Your task to perform on an android device: When is my next appointment? Image 0: 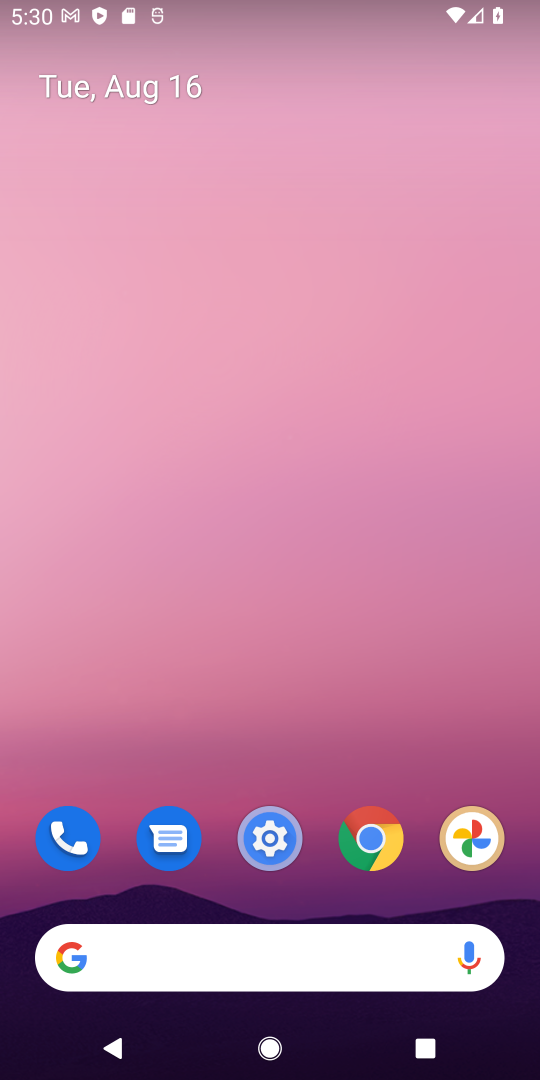
Step 0: drag from (294, 489) to (366, 86)
Your task to perform on an android device: When is my next appointment? Image 1: 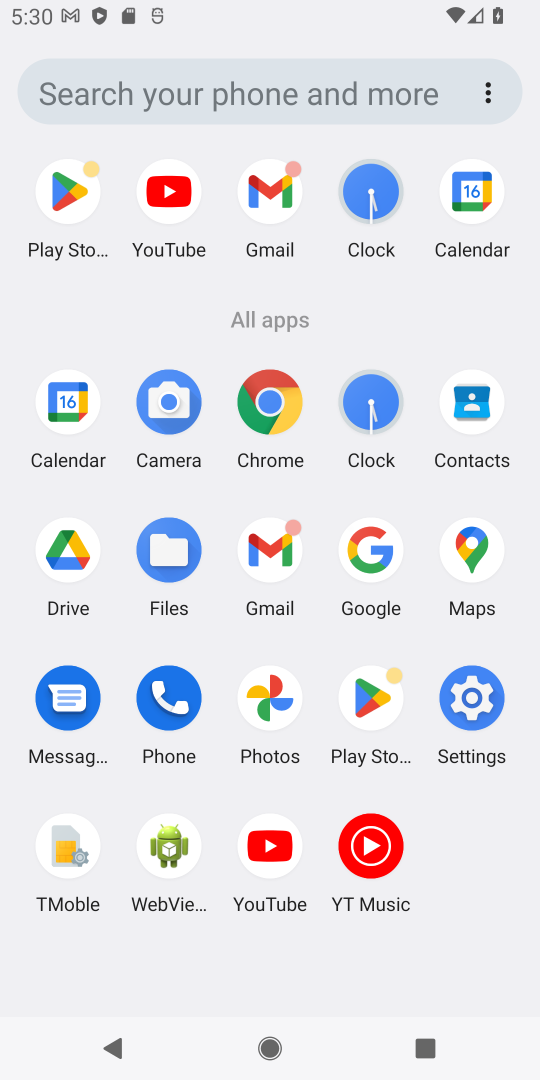
Step 1: click (474, 213)
Your task to perform on an android device: When is my next appointment? Image 2: 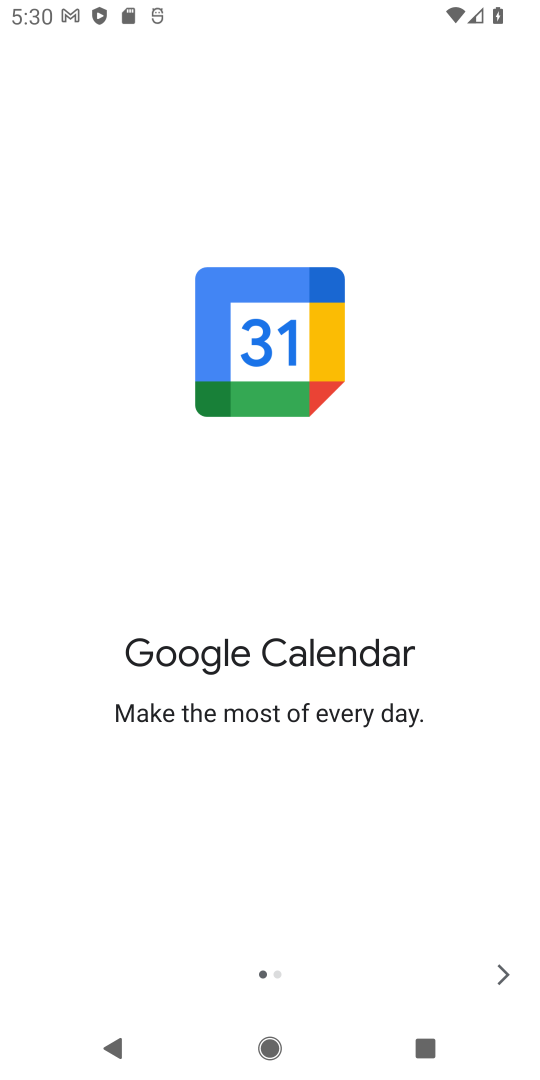
Step 2: click (501, 972)
Your task to perform on an android device: When is my next appointment? Image 3: 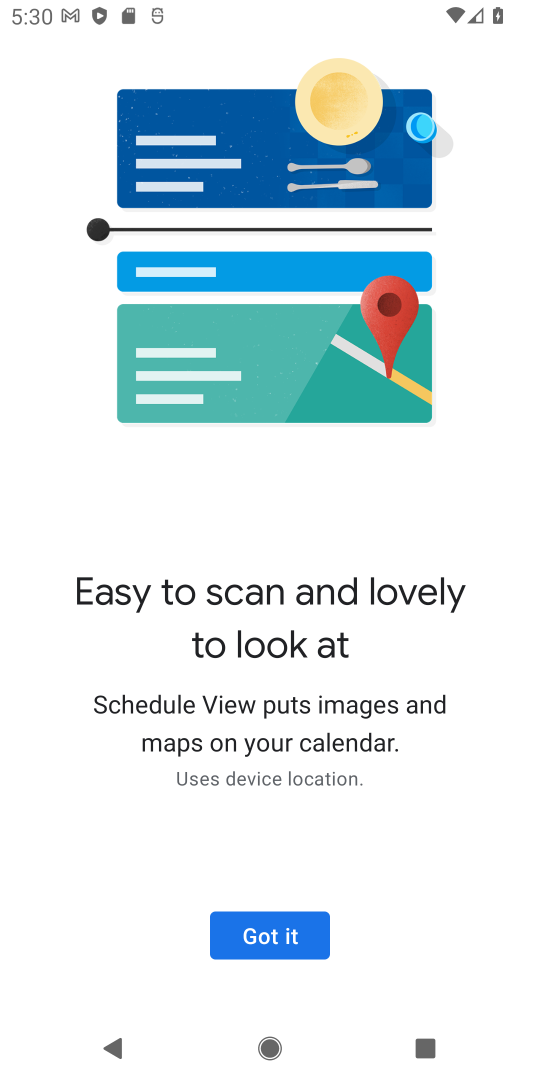
Step 3: click (501, 970)
Your task to perform on an android device: When is my next appointment? Image 4: 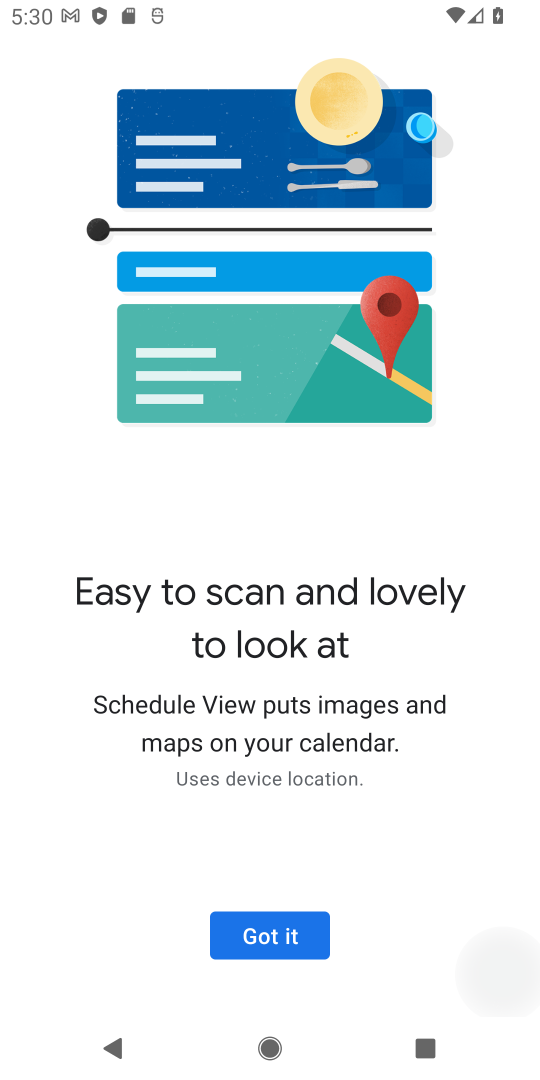
Step 4: click (237, 938)
Your task to perform on an android device: When is my next appointment? Image 5: 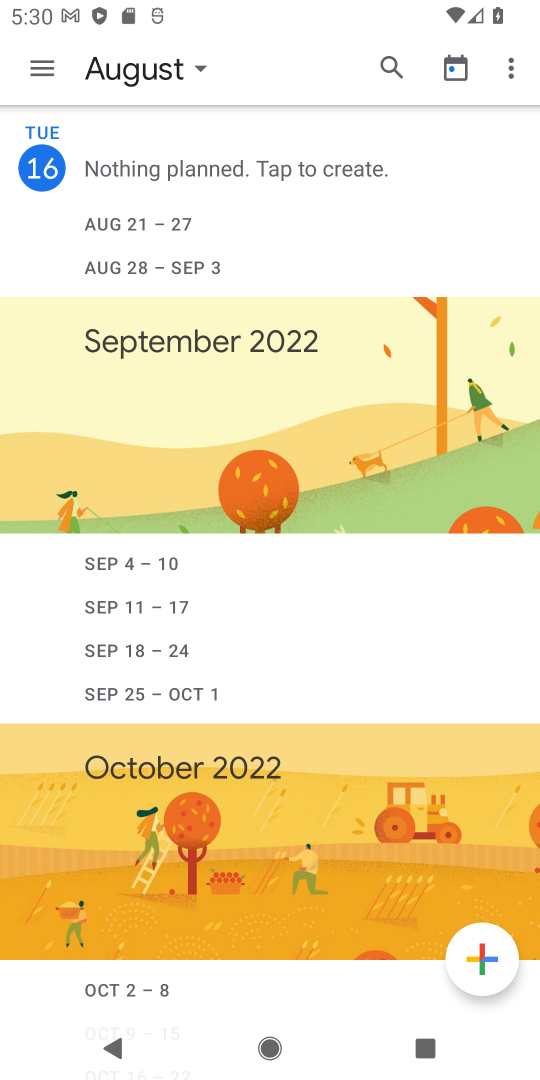
Step 5: click (174, 68)
Your task to perform on an android device: When is my next appointment? Image 6: 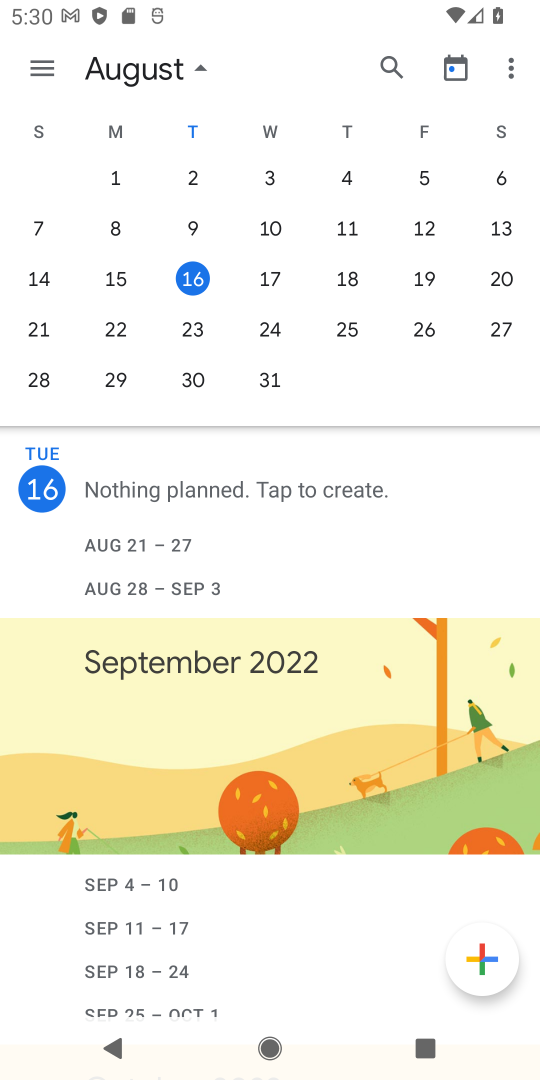
Step 6: task complete